Your task to perform on an android device: Go to CNN.com Image 0: 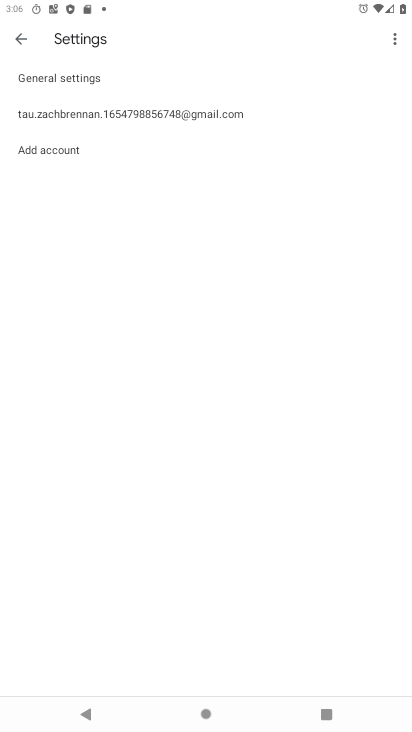
Step 0: press home button
Your task to perform on an android device: Go to CNN.com Image 1: 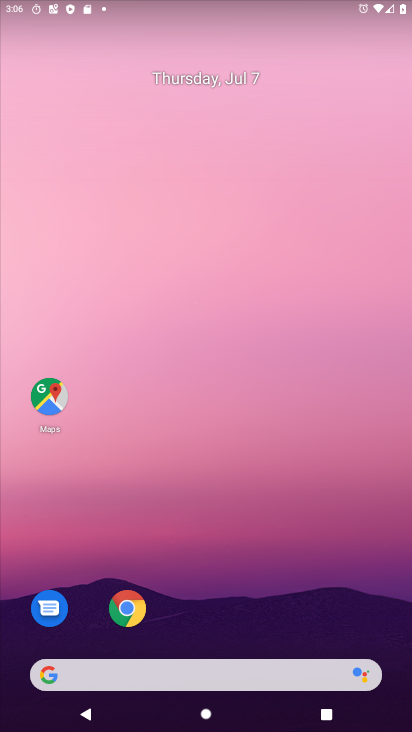
Step 1: click (123, 606)
Your task to perform on an android device: Go to CNN.com Image 2: 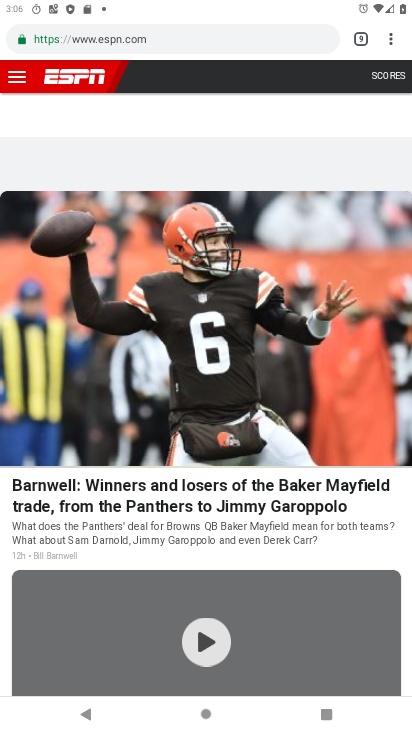
Step 2: click (391, 37)
Your task to perform on an android device: Go to CNN.com Image 3: 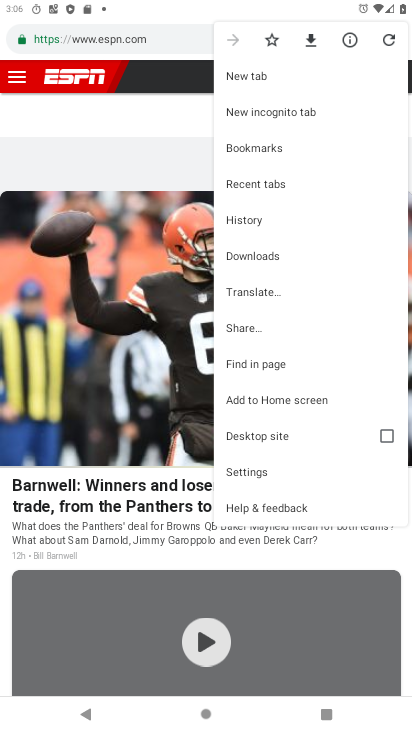
Step 3: click (249, 74)
Your task to perform on an android device: Go to CNN.com Image 4: 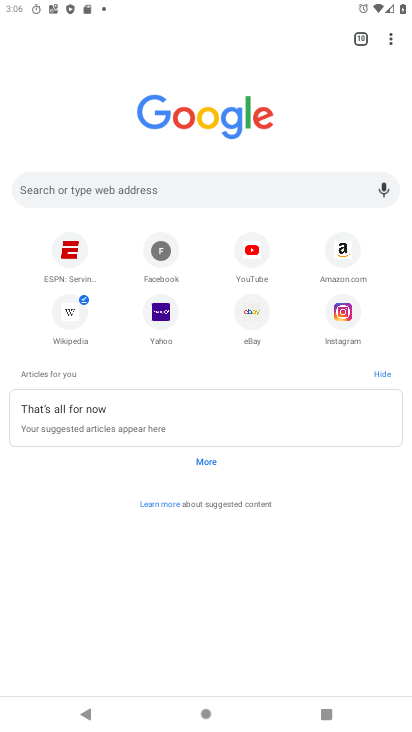
Step 4: click (188, 183)
Your task to perform on an android device: Go to CNN.com Image 5: 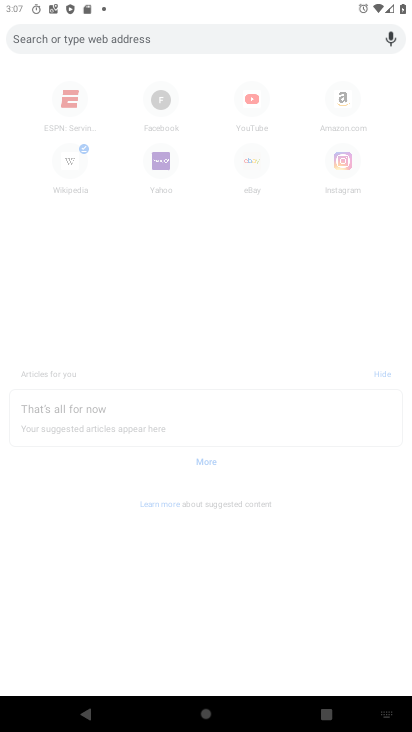
Step 5: type "CNN.com"
Your task to perform on an android device: Go to CNN.com Image 6: 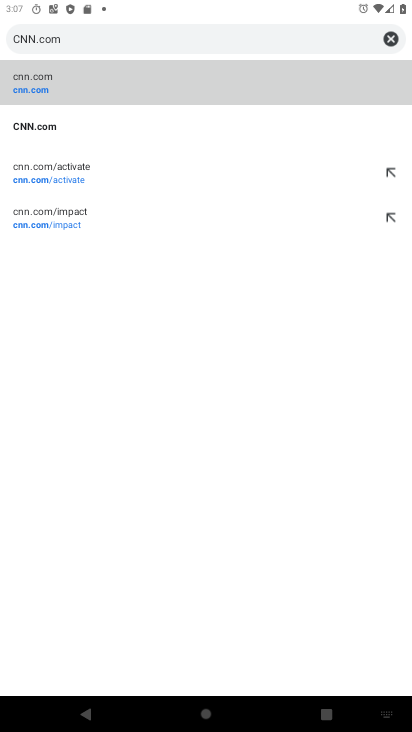
Step 6: click (45, 76)
Your task to perform on an android device: Go to CNN.com Image 7: 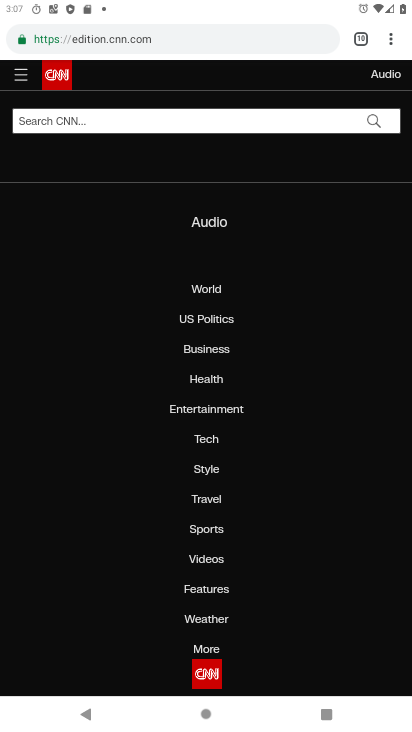
Step 7: task complete